Your task to perform on an android device: toggle javascript in the chrome app Image 0: 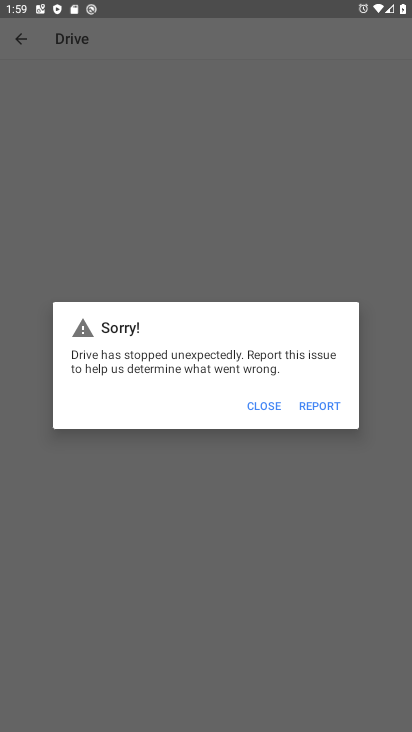
Step 0: press home button
Your task to perform on an android device: toggle javascript in the chrome app Image 1: 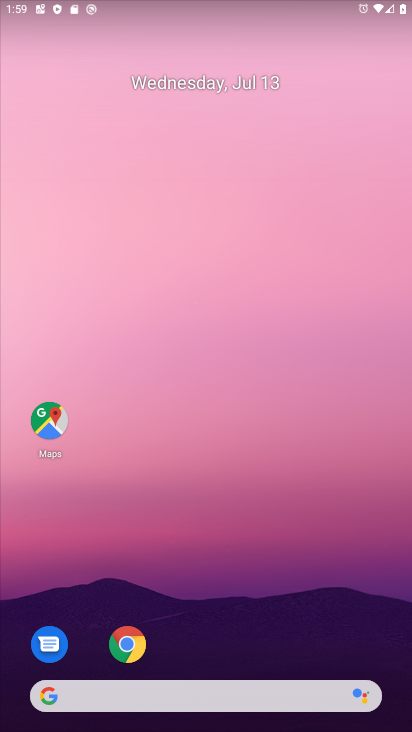
Step 1: click (136, 636)
Your task to perform on an android device: toggle javascript in the chrome app Image 2: 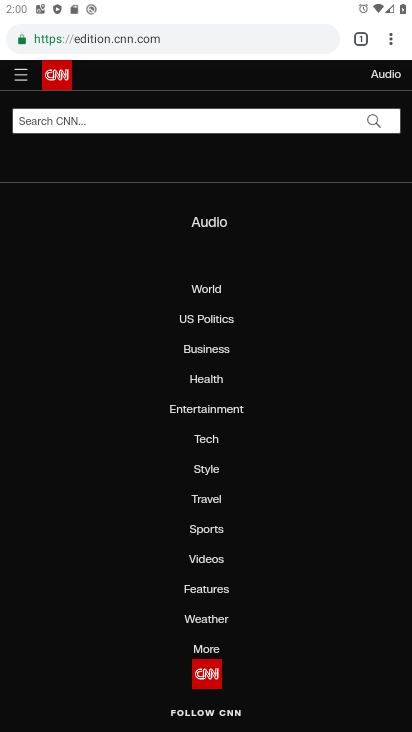
Step 2: drag from (387, 43) to (265, 470)
Your task to perform on an android device: toggle javascript in the chrome app Image 3: 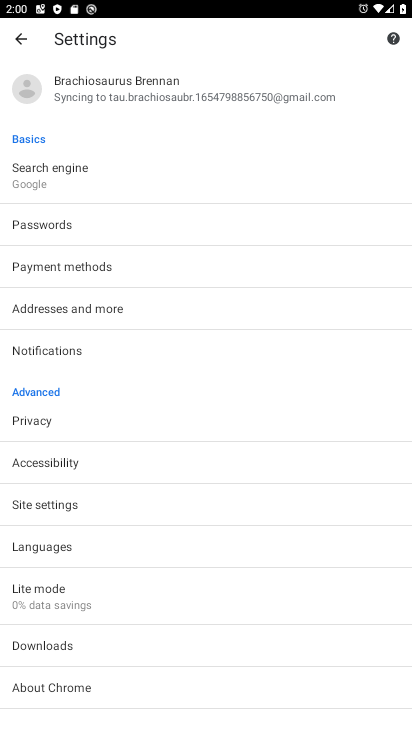
Step 3: click (56, 513)
Your task to perform on an android device: toggle javascript in the chrome app Image 4: 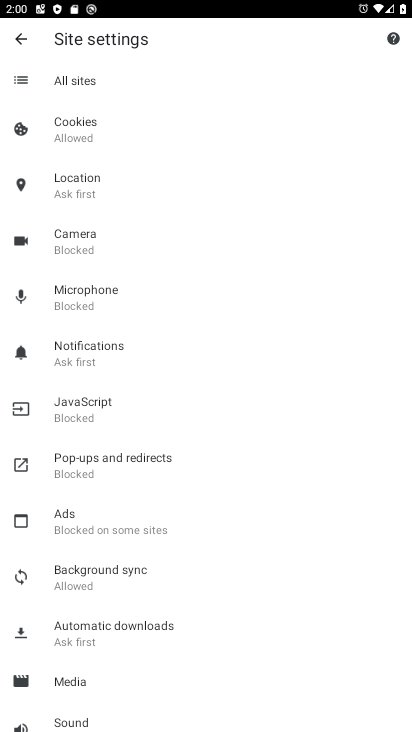
Step 4: click (65, 410)
Your task to perform on an android device: toggle javascript in the chrome app Image 5: 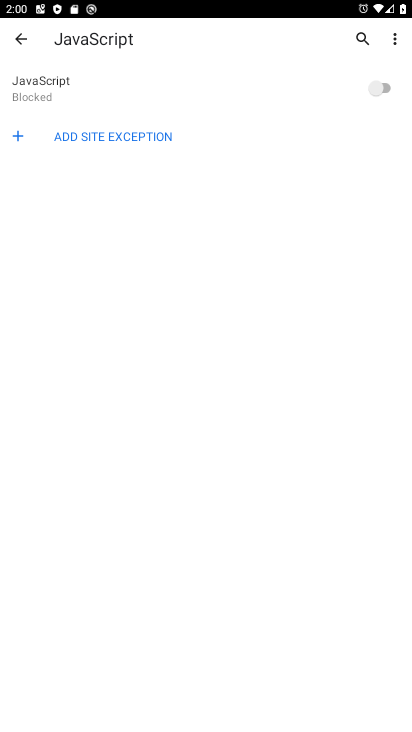
Step 5: click (378, 94)
Your task to perform on an android device: toggle javascript in the chrome app Image 6: 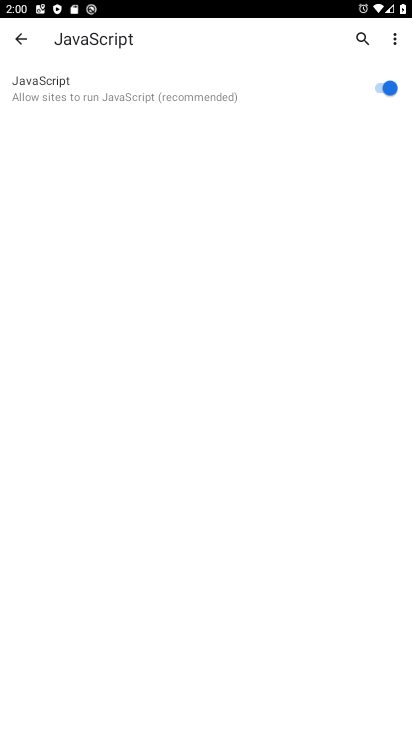
Step 6: task complete